Your task to perform on an android device: set an alarm Image 0: 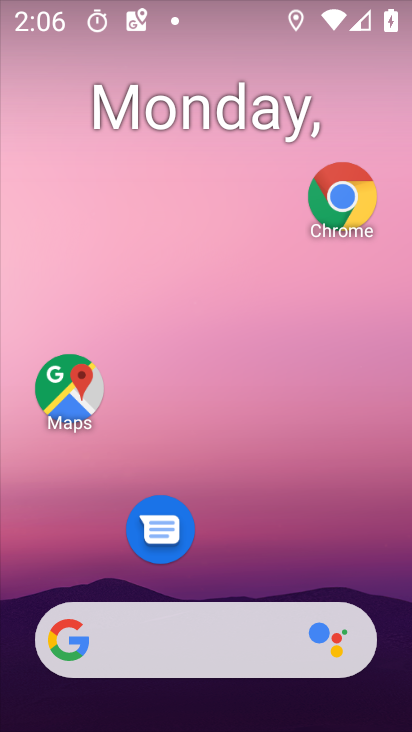
Step 0: drag from (245, 588) to (164, 48)
Your task to perform on an android device: set an alarm Image 1: 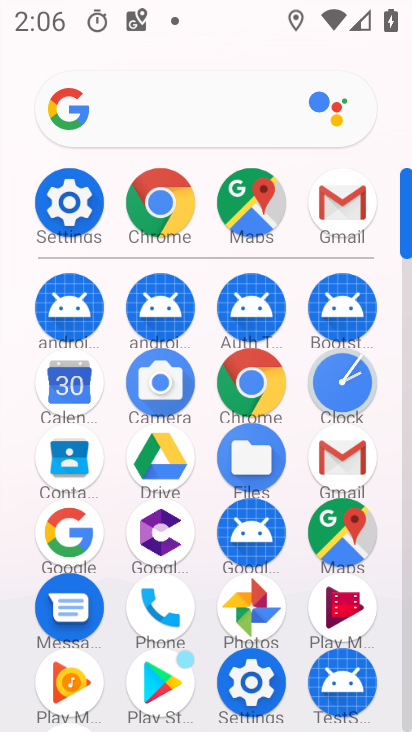
Step 1: click (347, 390)
Your task to perform on an android device: set an alarm Image 2: 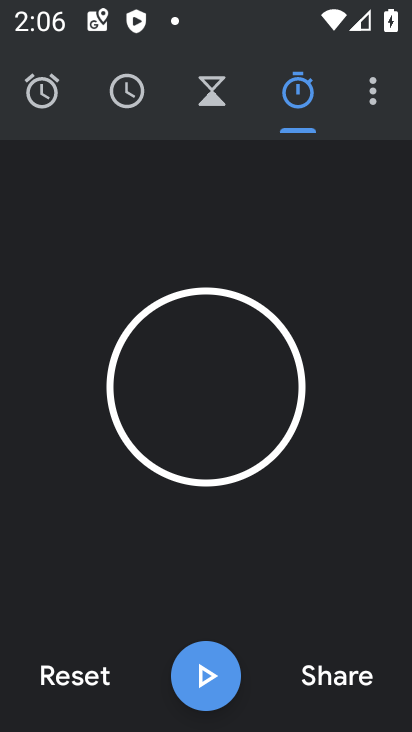
Step 2: click (49, 97)
Your task to perform on an android device: set an alarm Image 3: 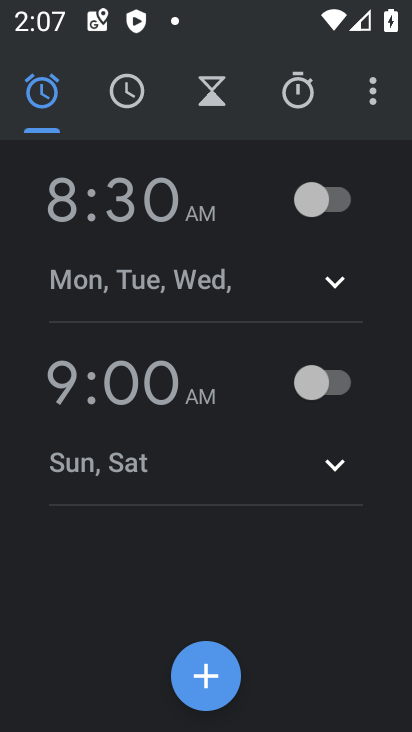
Step 3: task complete